Your task to perform on an android device: turn off airplane mode Image 0: 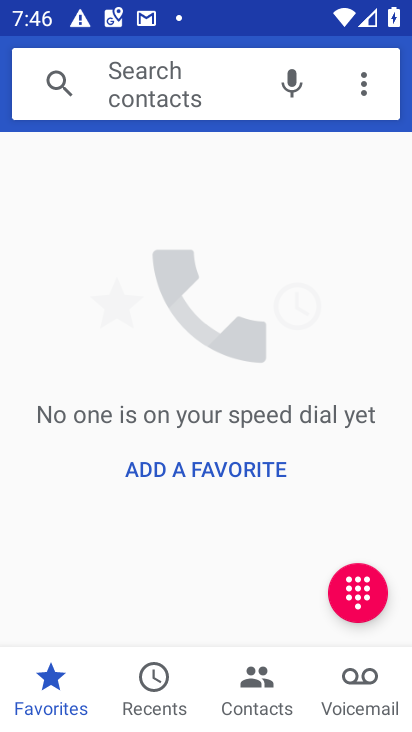
Step 0: press home button
Your task to perform on an android device: turn off airplane mode Image 1: 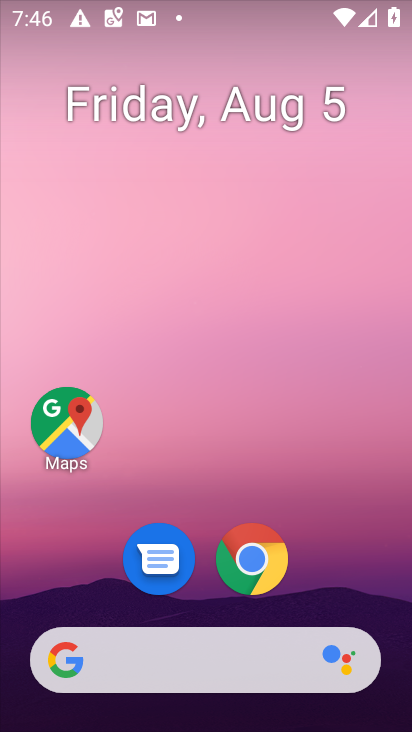
Step 1: drag from (210, 609) to (181, 32)
Your task to perform on an android device: turn off airplane mode Image 2: 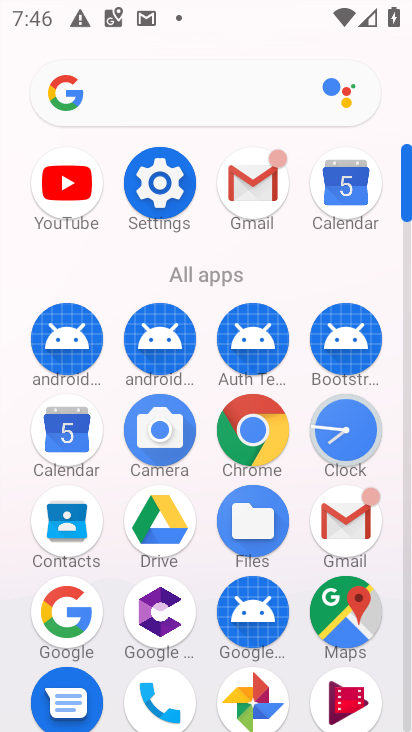
Step 2: click (162, 196)
Your task to perform on an android device: turn off airplane mode Image 3: 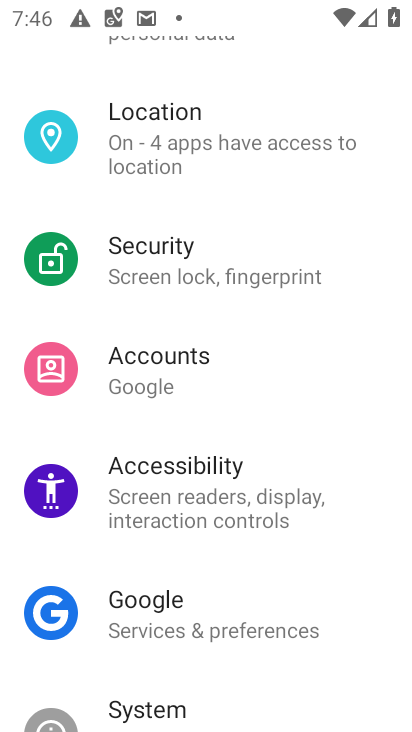
Step 3: drag from (168, 189) to (216, 710)
Your task to perform on an android device: turn off airplane mode Image 4: 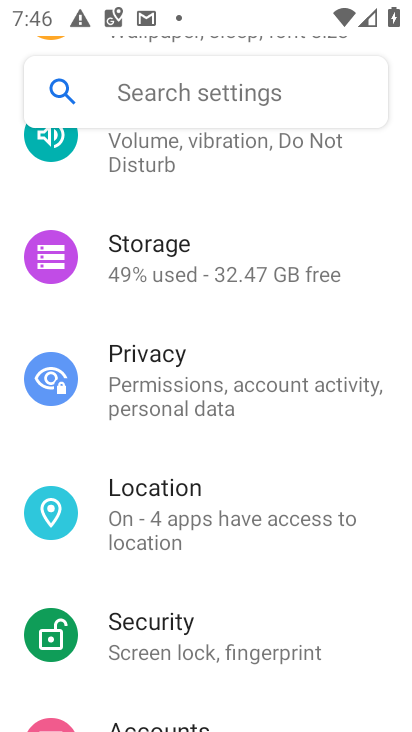
Step 4: drag from (255, 230) to (190, 715)
Your task to perform on an android device: turn off airplane mode Image 5: 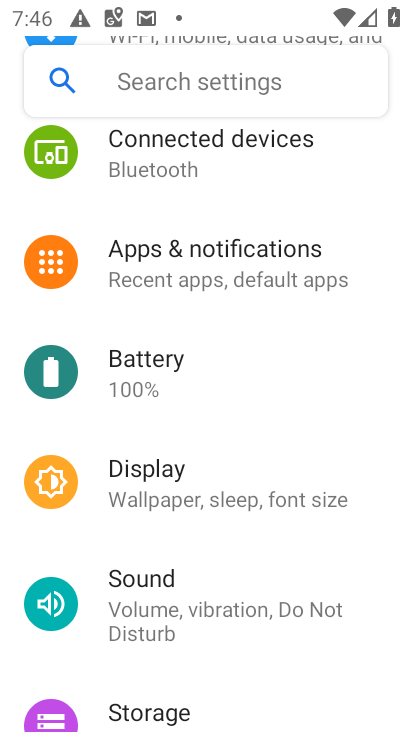
Step 5: drag from (227, 274) to (225, 724)
Your task to perform on an android device: turn off airplane mode Image 6: 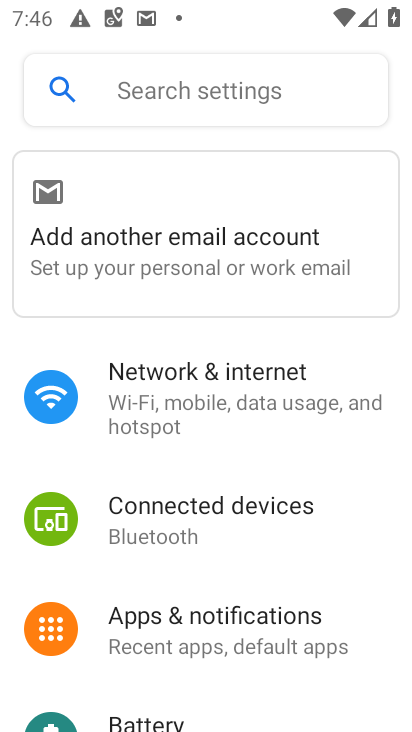
Step 6: click (172, 420)
Your task to perform on an android device: turn off airplane mode Image 7: 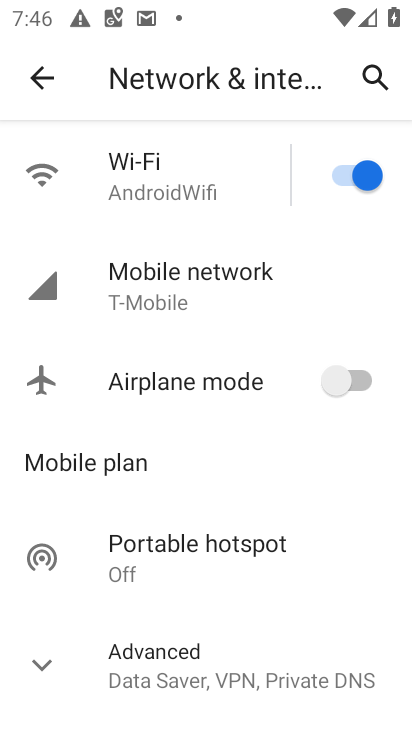
Step 7: task complete